Your task to perform on an android device: open a bookmark in the chrome app Image 0: 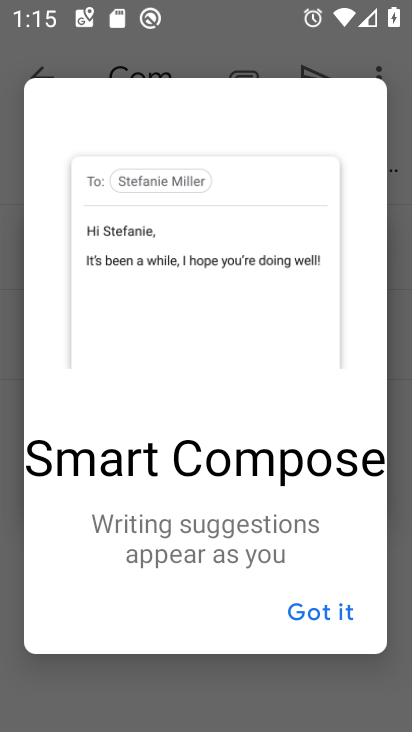
Step 0: press home button
Your task to perform on an android device: open a bookmark in the chrome app Image 1: 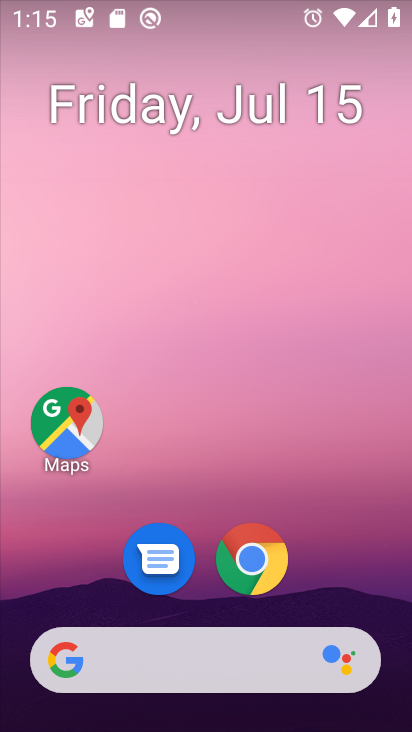
Step 1: drag from (336, 599) to (380, 116)
Your task to perform on an android device: open a bookmark in the chrome app Image 2: 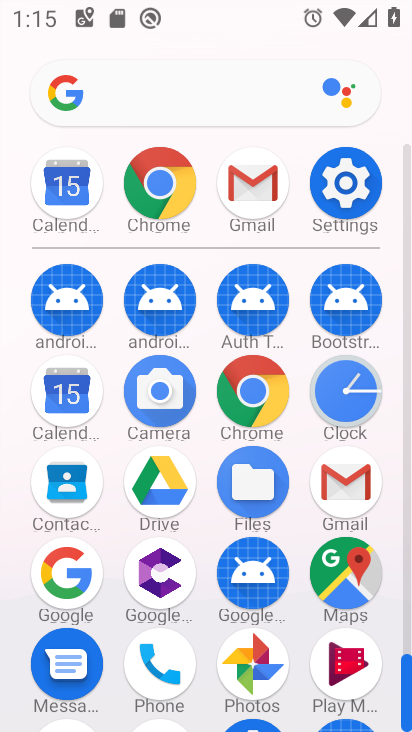
Step 2: click (160, 205)
Your task to perform on an android device: open a bookmark in the chrome app Image 3: 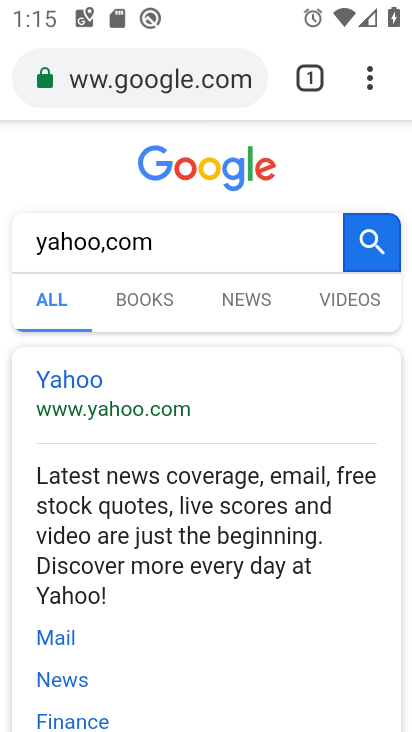
Step 3: click (371, 89)
Your task to perform on an android device: open a bookmark in the chrome app Image 4: 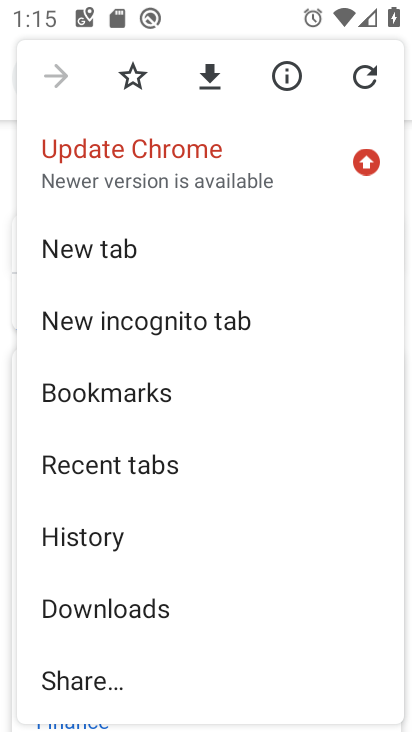
Step 4: drag from (334, 401) to (338, 305)
Your task to perform on an android device: open a bookmark in the chrome app Image 5: 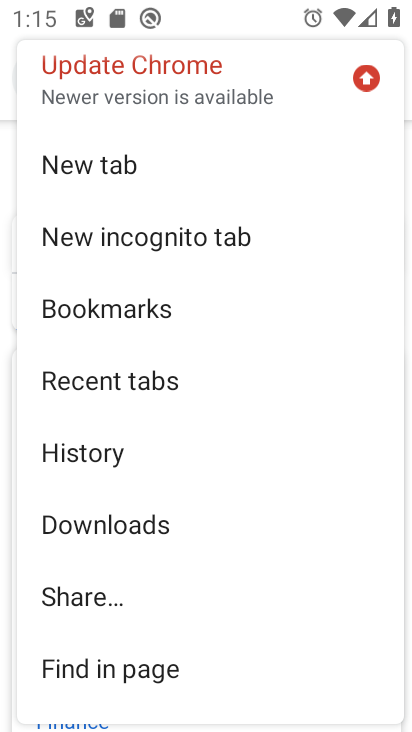
Step 5: drag from (334, 409) to (356, 325)
Your task to perform on an android device: open a bookmark in the chrome app Image 6: 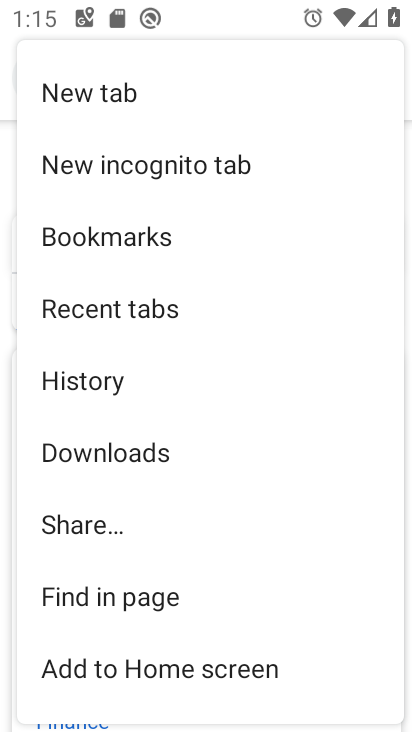
Step 6: drag from (327, 460) to (330, 391)
Your task to perform on an android device: open a bookmark in the chrome app Image 7: 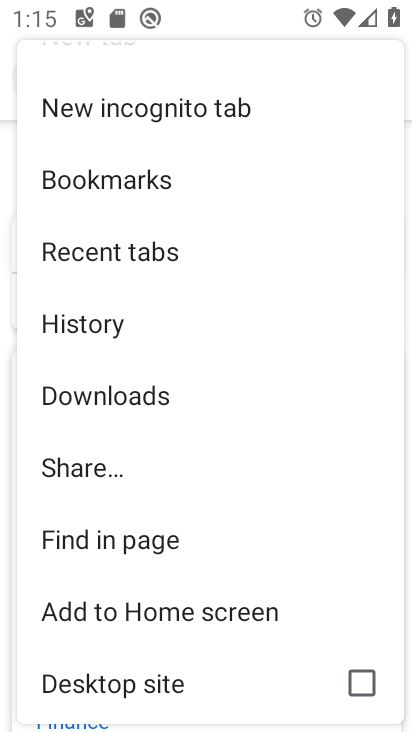
Step 7: drag from (335, 263) to (333, 373)
Your task to perform on an android device: open a bookmark in the chrome app Image 8: 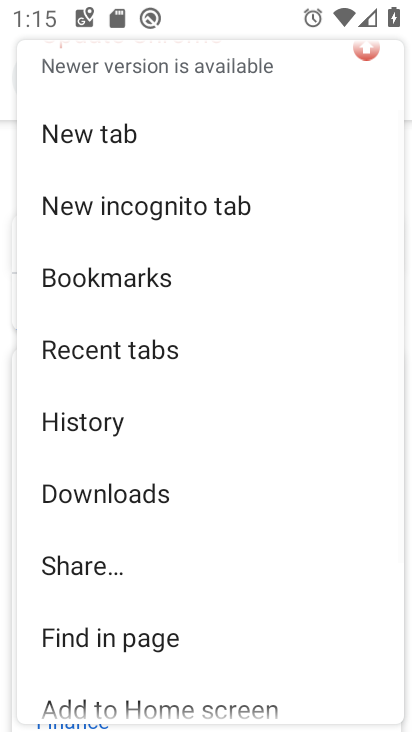
Step 8: drag from (334, 257) to (311, 440)
Your task to perform on an android device: open a bookmark in the chrome app Image 9: 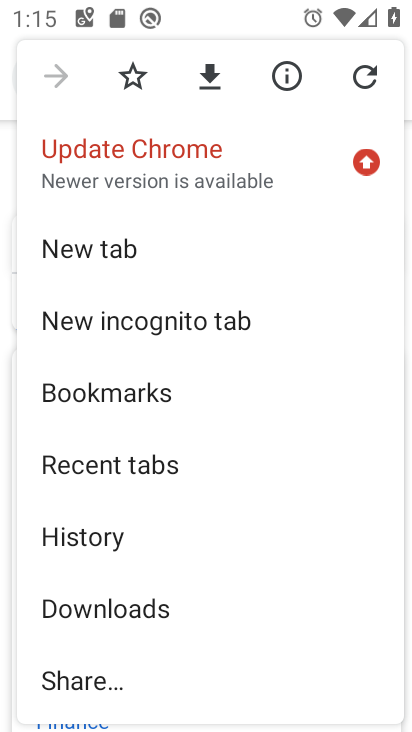
Step 9: click (169, 396)
Your task to perform on an android device: open a bookmark in the chrome app Image 10: 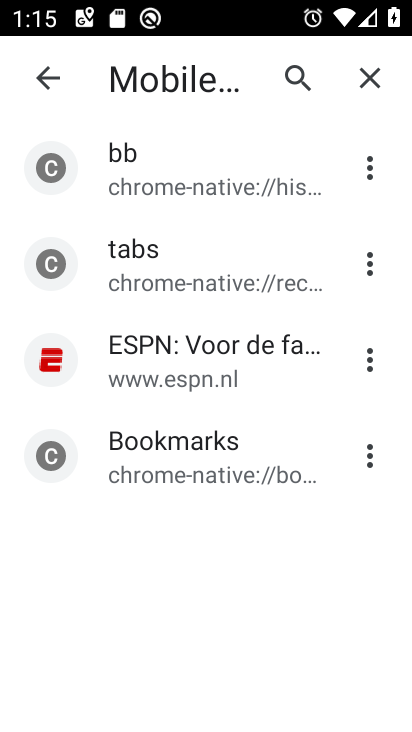
Step 10: click (189, 352)
Your task to perform on an android device: open a bookmark in the chrome app Image 11: 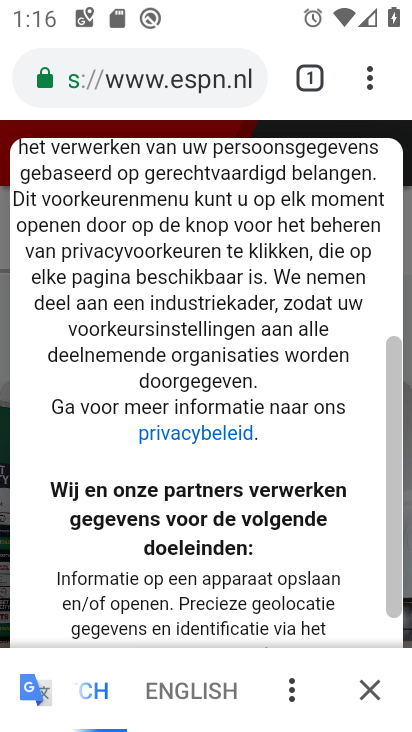
Step 11: task complete